Your task to perform on an android device: turn smart compose on in the gmail app Image 0: 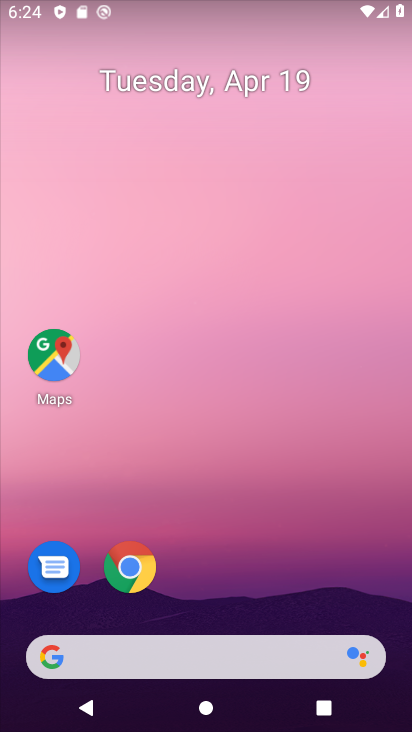
Step 0: drag from (236, 563) to (87, 4)
Your task to perform on an android device: turn smart compose on in the gmail app Image 1: 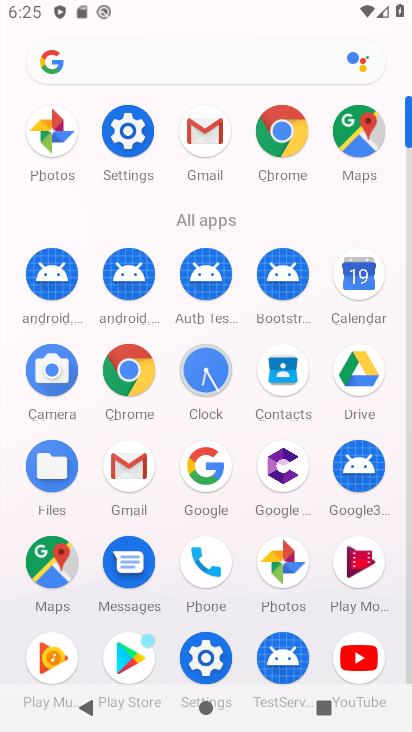
Step 1: click (202, 128)
Your task to perform on an android device: turn smart compose on in the gmail app Image 2: 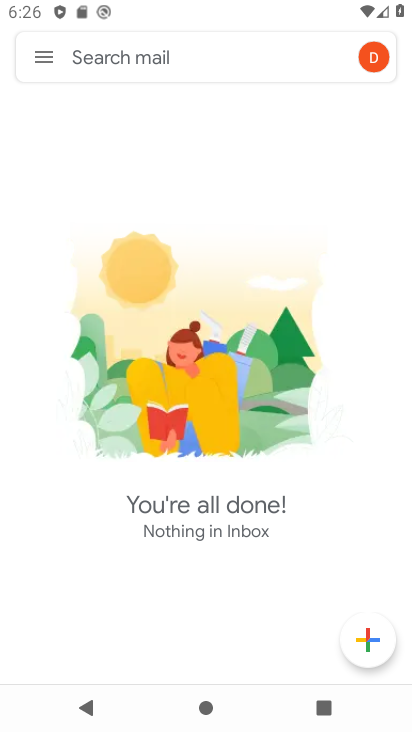
Step 2: click (36, 65)
Your task to perform on an android device: turn smart compose on in the gmail app Image 3: 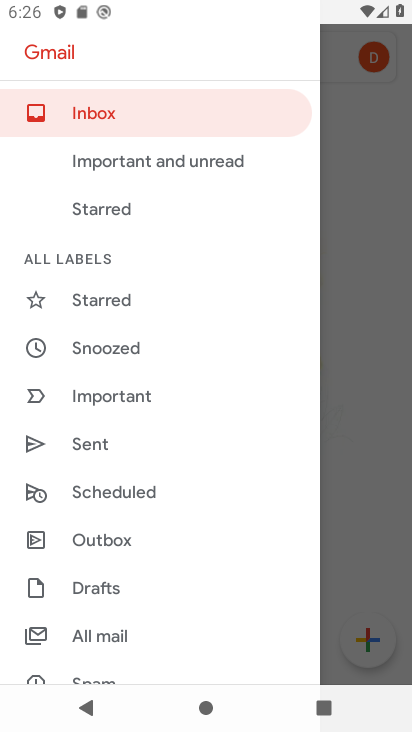
Step 3: drag from (154, 637) to (149, 547)
Your task to perform on an android device: turn smart compose on in the gmail app Image 4: 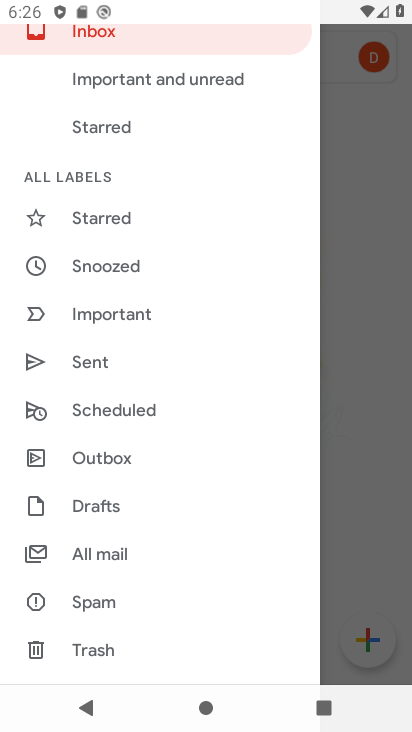
Step 4: drag from (156, 574) to (165, 416)
Your task to perform on an android device: turn smart compose on in the gmail app Image 5: 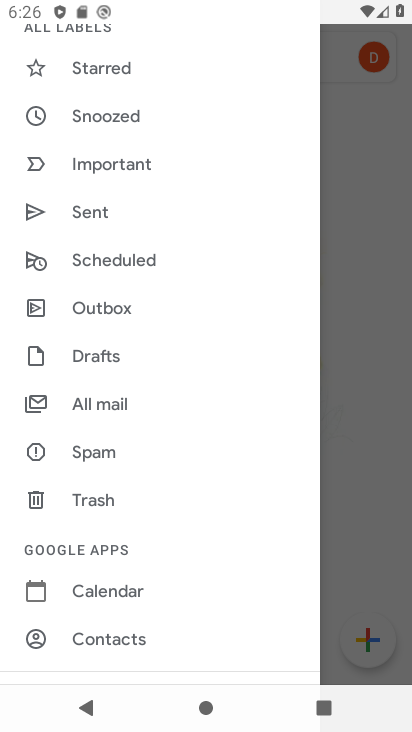
Step 5: drag from (145, 615) to (126, 364)
Your task to perform on an android device: turn smart compose on in the gmail app Image 6: 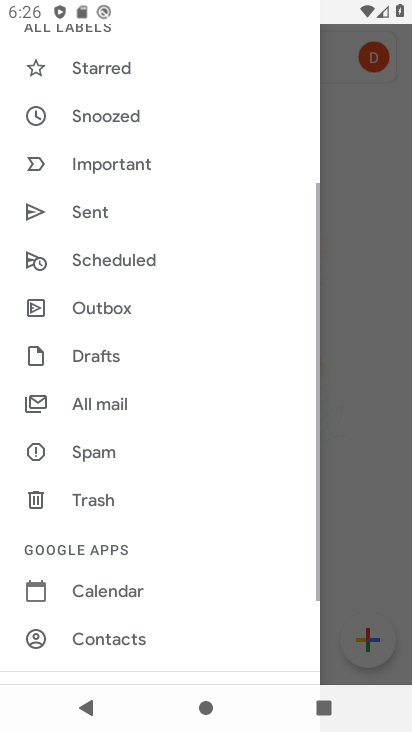
Step 6: drag from (130, 551) to (110, 300)
Your task to perform on an android device: turn smart compose on in the gmail app Image 7: 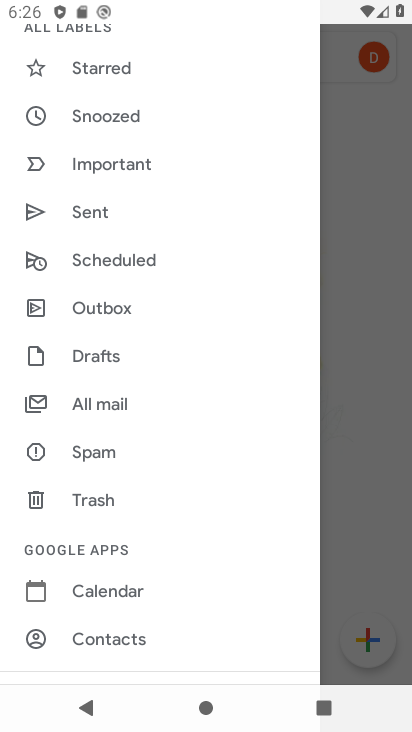
Step 7: drag from (100, 502) to (70, 179)
Your task to perform on an android device: turn smart compose on in the gmail app Image 8: 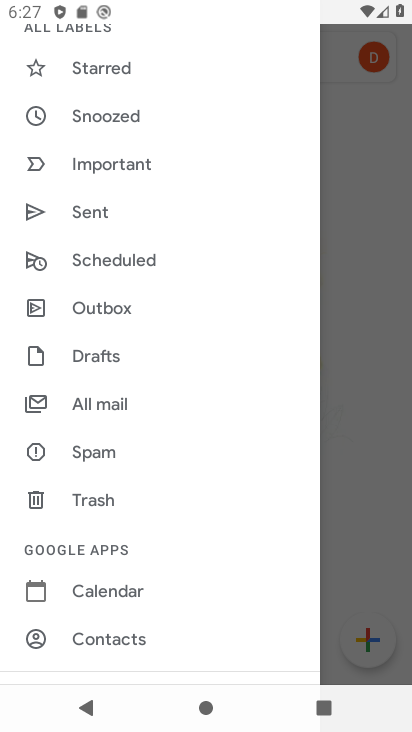
Step 8: drag from (177, 608) to (198, 329)
Your task to perform on an android device: turn smart compose on in the gmail app Image 9: 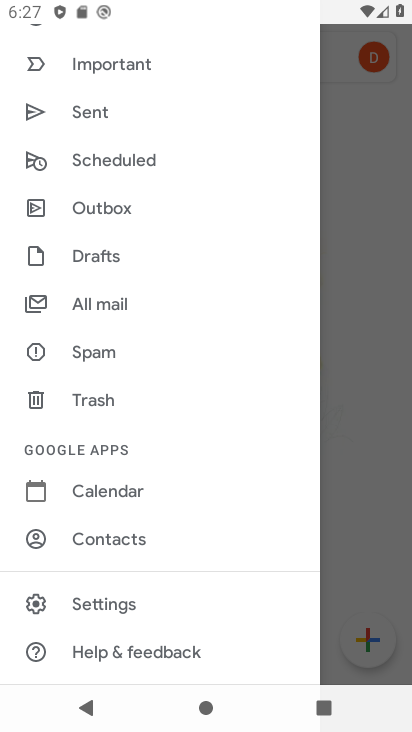
Step 9: click (99, 606)
Your task to perform on an android device: turn smart compose on in the gmail app Image 10: 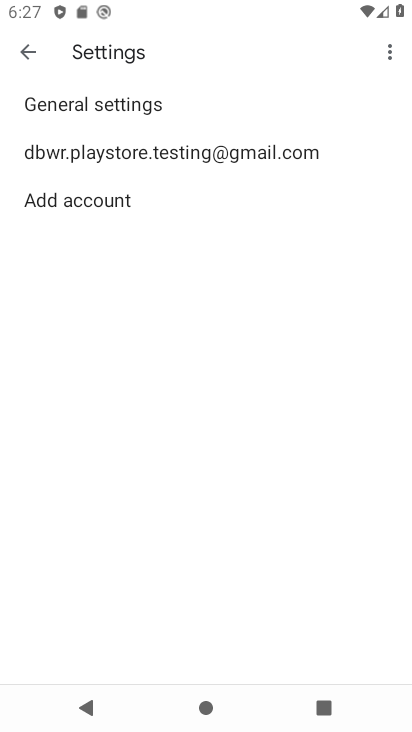
Step 10: click (224, 140)
Your task to perform on an android device: turn smart compose on in the gmail app Image 11: 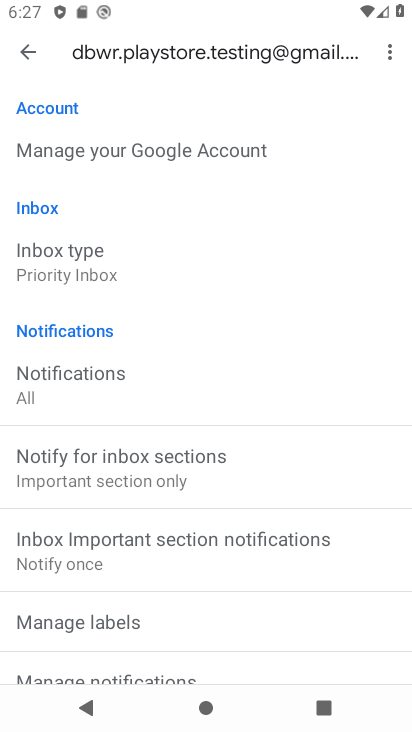
Step 11: task complete